Your task to perform on an android device: remove spam from my inbox in the gmail app Image 0: 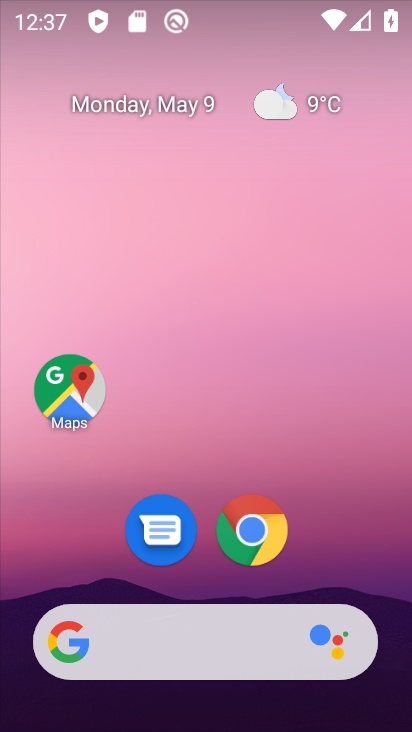
Step 0: drag from (321, 372) to (298, 188)
Your task to perform on an android device: remove spam from my inbox in the gmail app Image 1: 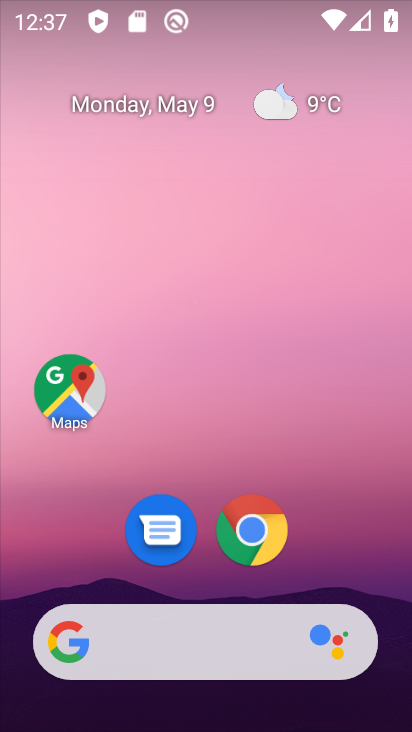
Step 1: drag from (335, 578) to (334, 190)
Your task to perform on an android device: remove spam from my inbox in the gmail app Image 2: 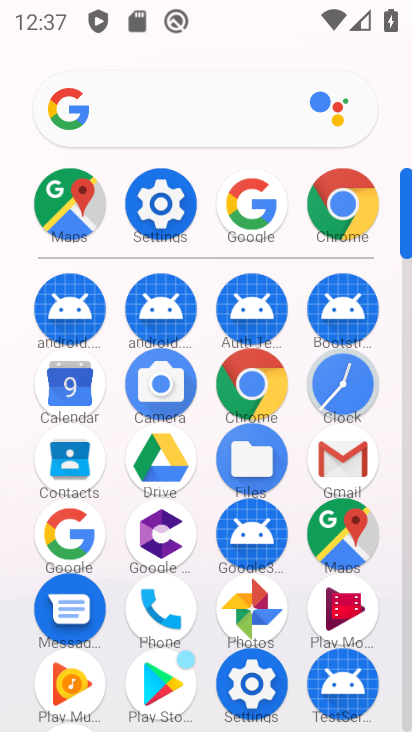
Step 2: click (339, 454)
Your task to perform on an android device: remove spam from my inbox in the gmail app Image 3: 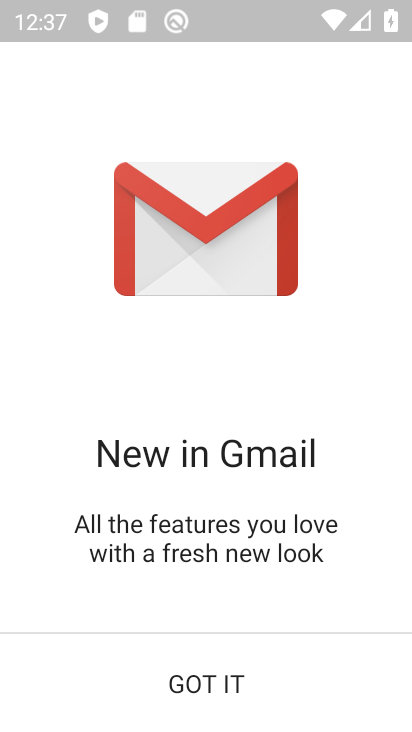
Step 3: click (184, 669)
Your task to perform on an android device: remove spam from my inbox in the gmail app Image 4: 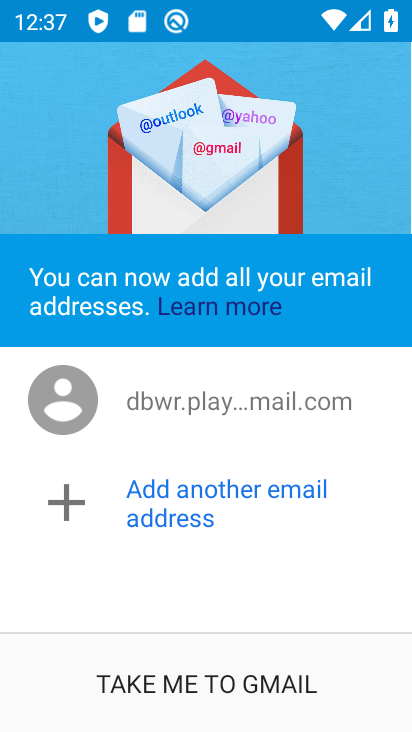
Step 4: click (206, 665)
Your task to perform on an android device: remove spam from my inbox in the gmail app Image 5: 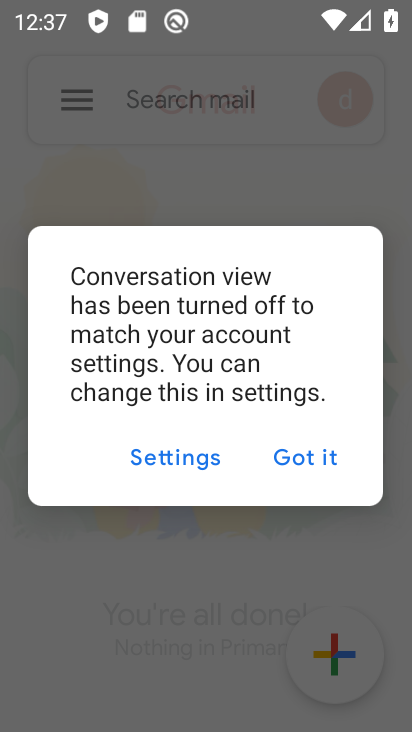
Step 5: click (302, 460)
Your task to perform on an android device: remove spam from my inbox in the gmail app Image 6: 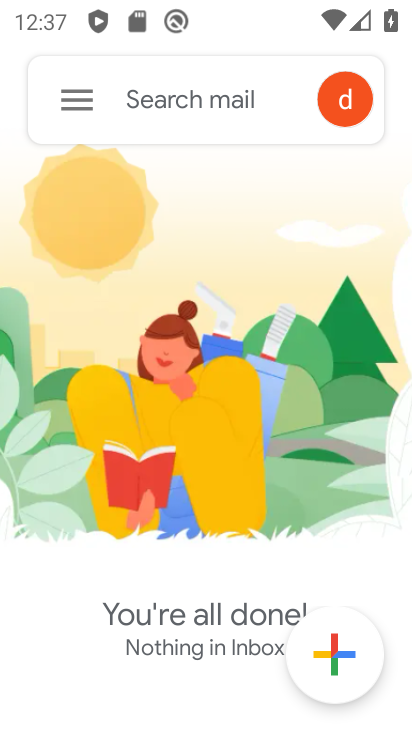
Step 6: click (59, 104)
Your task to perform on an android device: remove spam from my inbox in the gmail app Image 7: 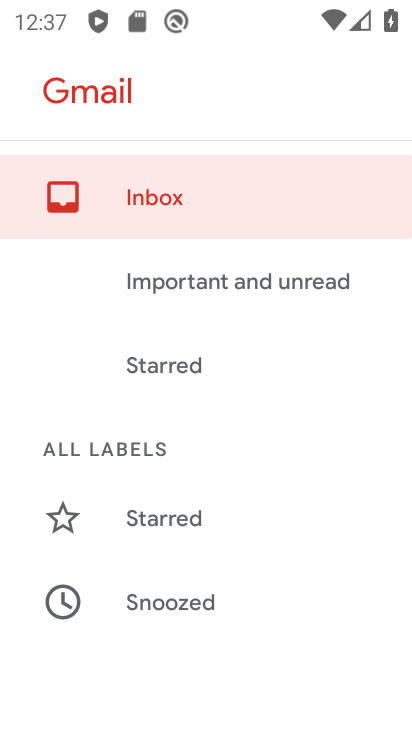
Step 7: drag from (235, 630) to (243, 178)
Your task to perform on an android device: remove spam from my inbox in the gmail app Image 8: 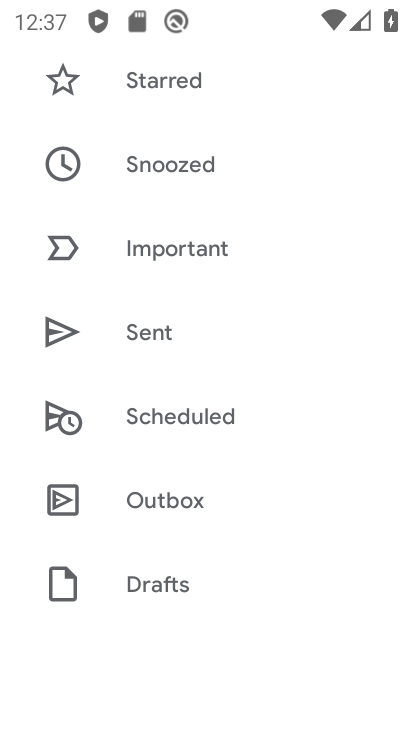
Step 8: drag from (228, 582) to (264, 219)
Your task to perform on an android device: remove spam from my inbox in the gmail app Image 9: 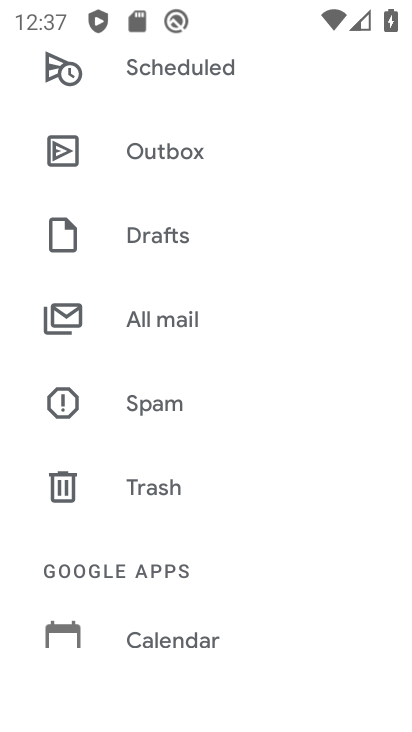
Step 9: click (142, 429)
Your task to perform on an android device: remove spam from my inbox in the gmail app Image 10: 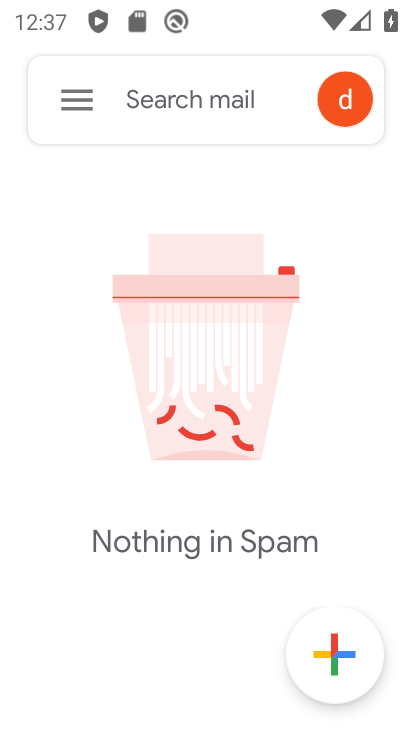
Step 10: task complete